Your task to perform on an android device: Open Google Image 0: 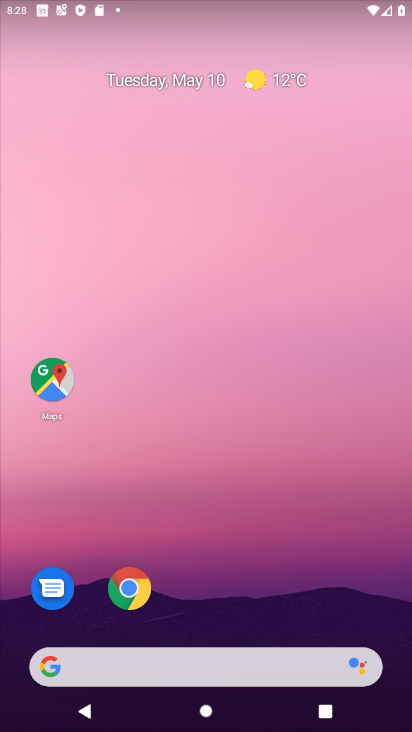
Step 0: click (151, 667)
Your task to perform on an android device: Open Google Image 1: 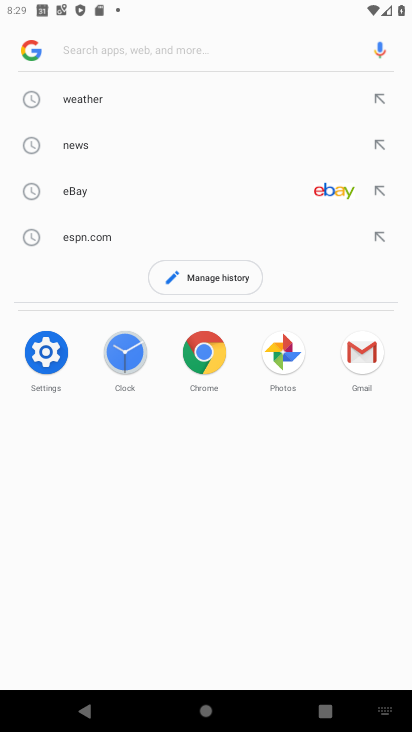
Step 1: task complete